Your task to perform on an android device: How do I get to the nearest Lowe's? Image 0: 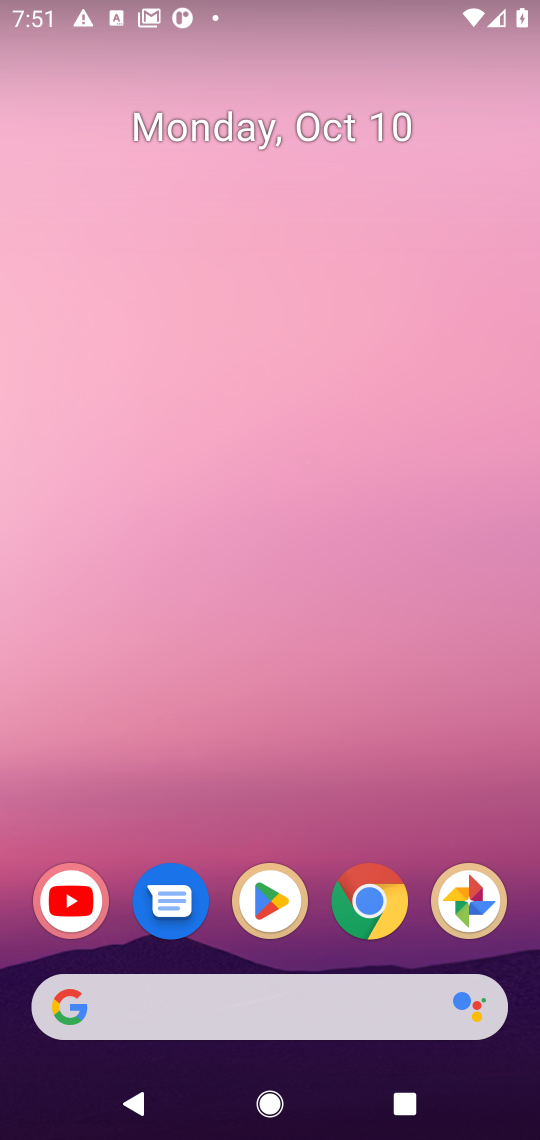
Step 0: click (315, 971)
Your task to perform on an android device: How do I get to the nearest Lowe's? Image 1: 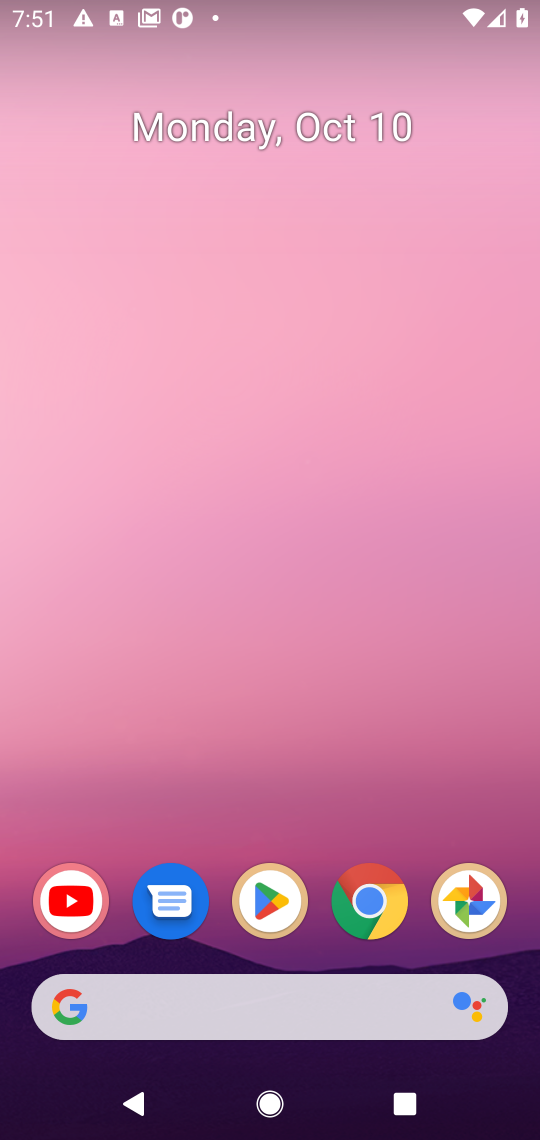
Step 1: click (310, 979)
Your task to perform on an android device: How do I get to the nearest Lowe's? Image 2: 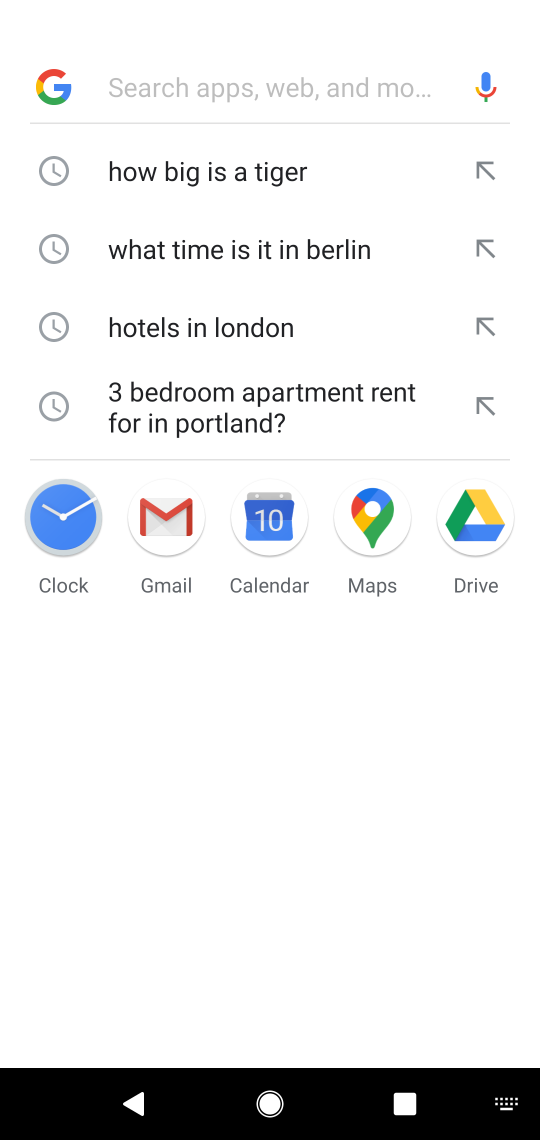
Step 2: type "nearest Lowe's"
Your task to perform on an android device: How do I get to the nearest Lowe's? Image 3: 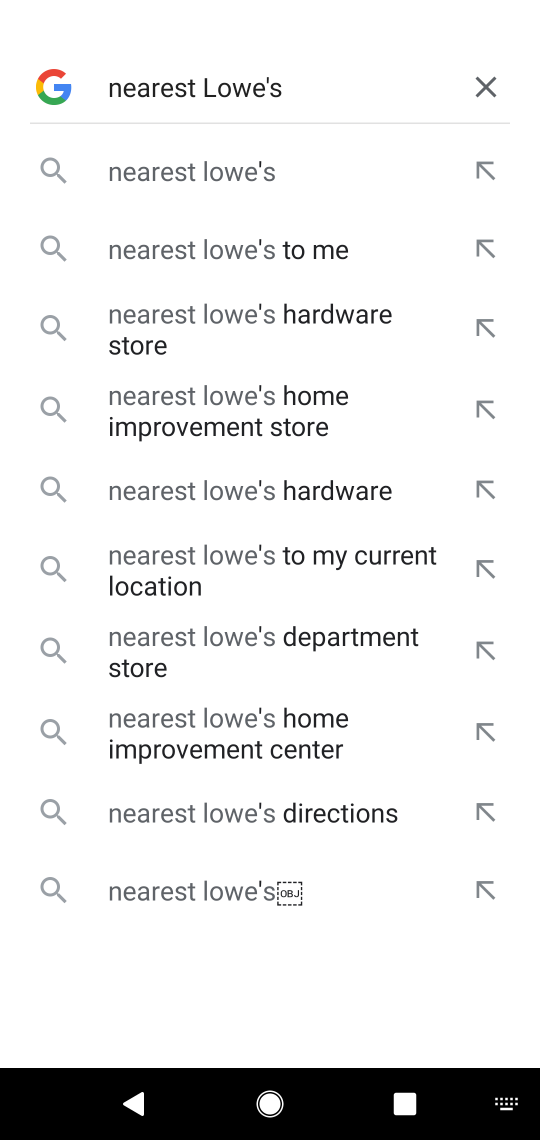
Step 3: click (210, 178)
Your task to perform on an android device: How do I get to the nearest Lowe's? Image 4: 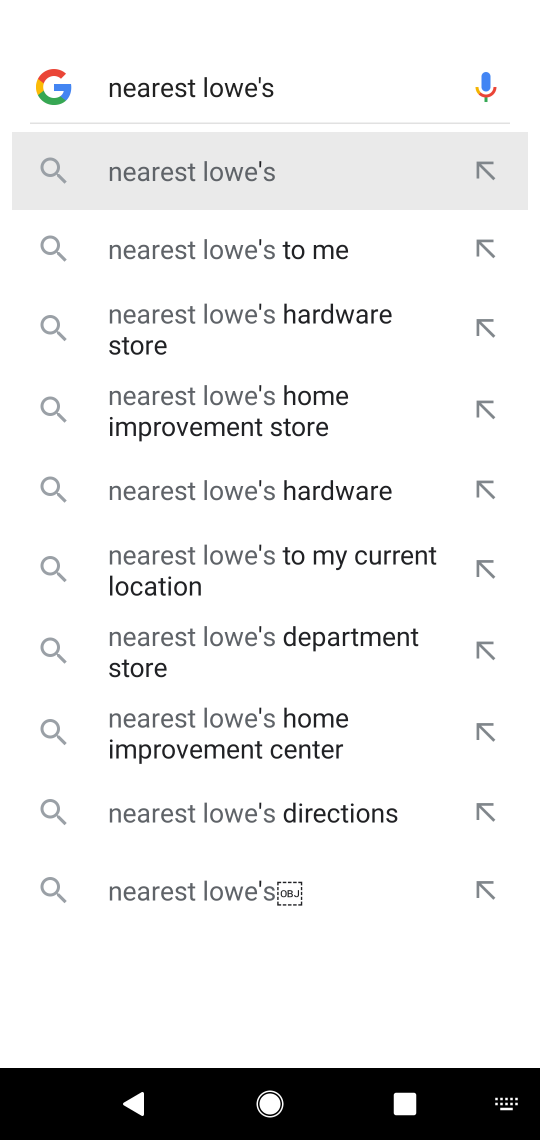
Step 4: click (210, 178)
Your task to perform on an android device: How do I get to the nearest Lowe's? Image 5: 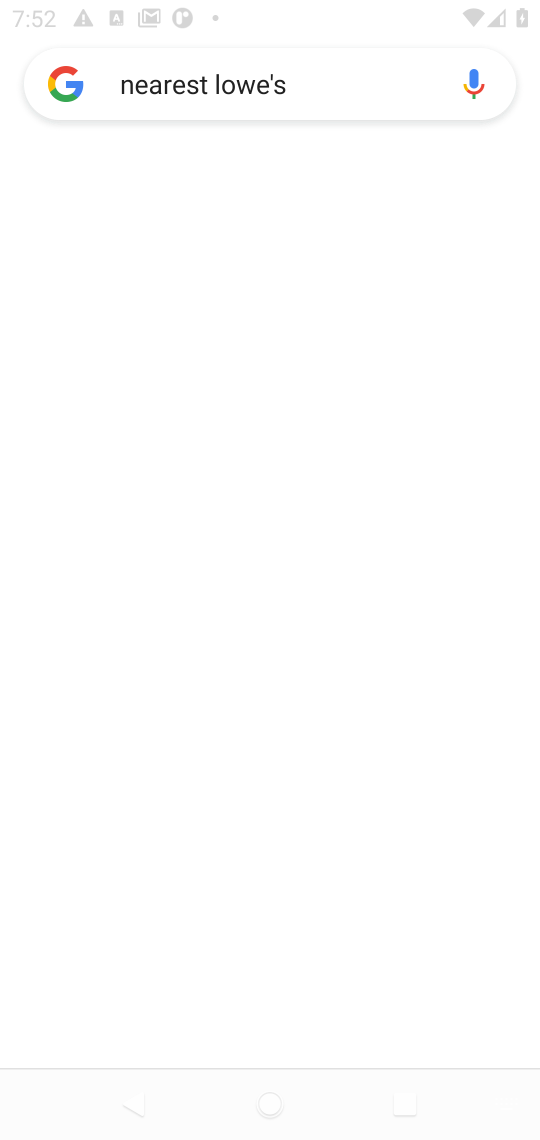
Step 5: click (210, 178)
Your task to perform on an android device: How do I get to the nearest Lowe's? Image 6: 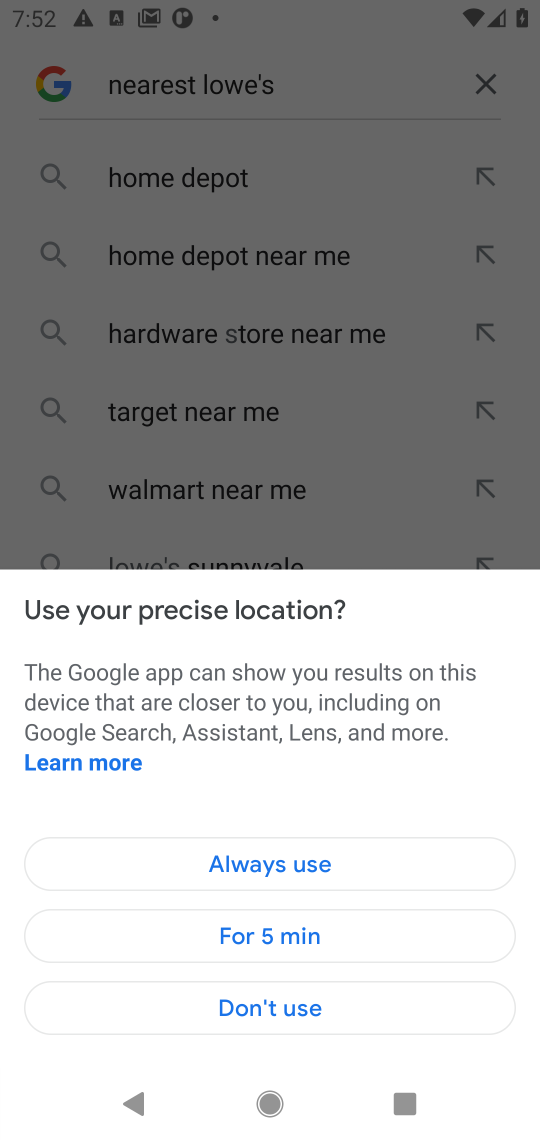
Step 6: click (295, 857)
Your task to perform on an android device: How do I get to the nearest Lowe's? Image 7: 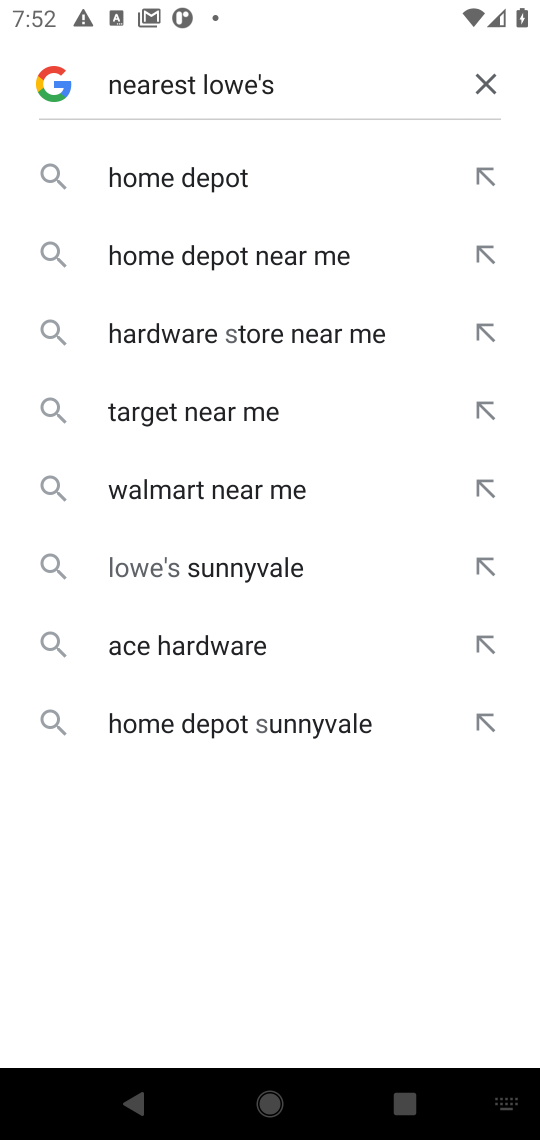
Step 7: press enter
Your task to perform on an android device: How do I get to the nearest Lowe's? Image 8: 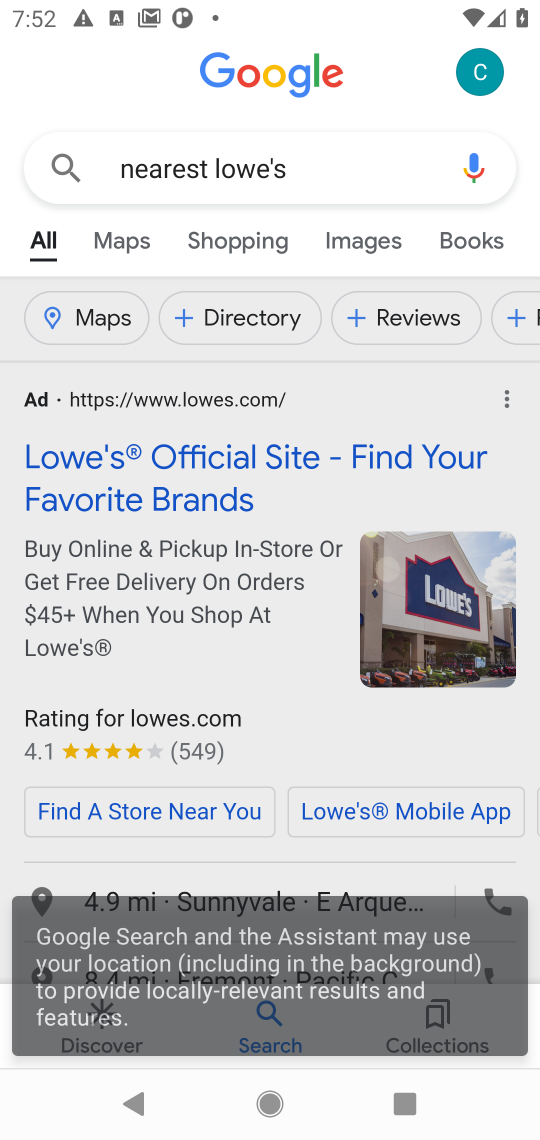
Step 8: drag from (322, 705) to (371, 379)
Your task to perform on an android device: How do I get to the nearest Lowe's? Image 9: 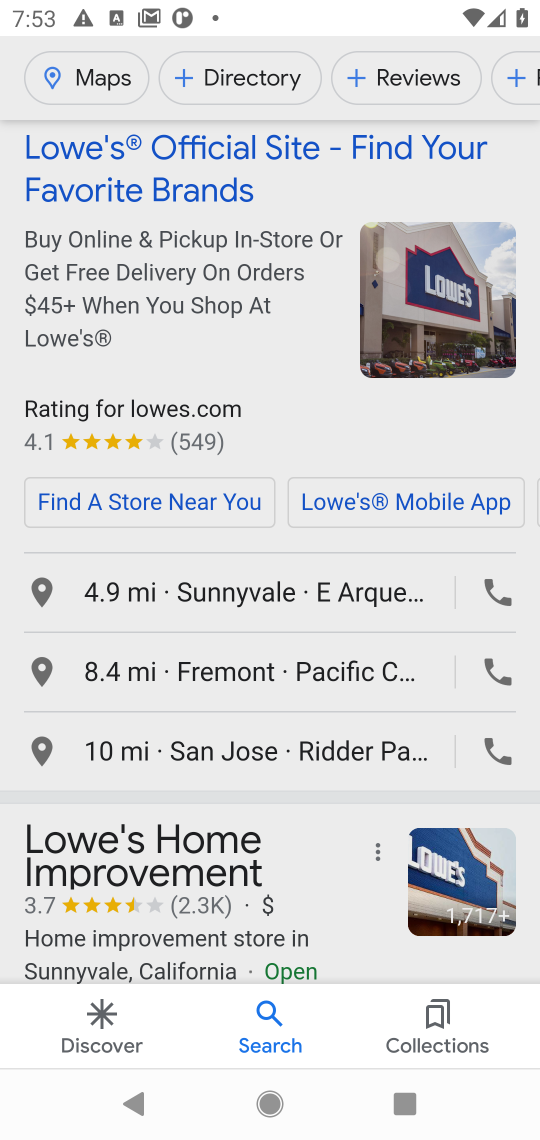
Step 9: drag from (20, 799) to (45, 210)
Your task to perform on an android device: How do I get to the nearest Lowe's? Image 10: 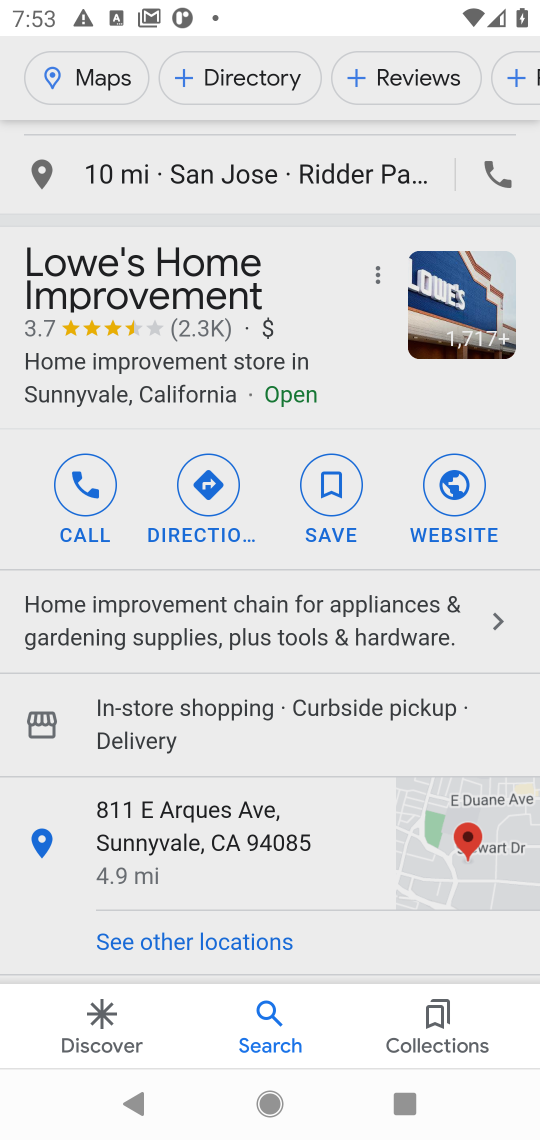
Step 10: drag from (26, 688) to (47, 264)
Your task to perform on an android device: How do I get to the nearest Lowe's? Image 11: 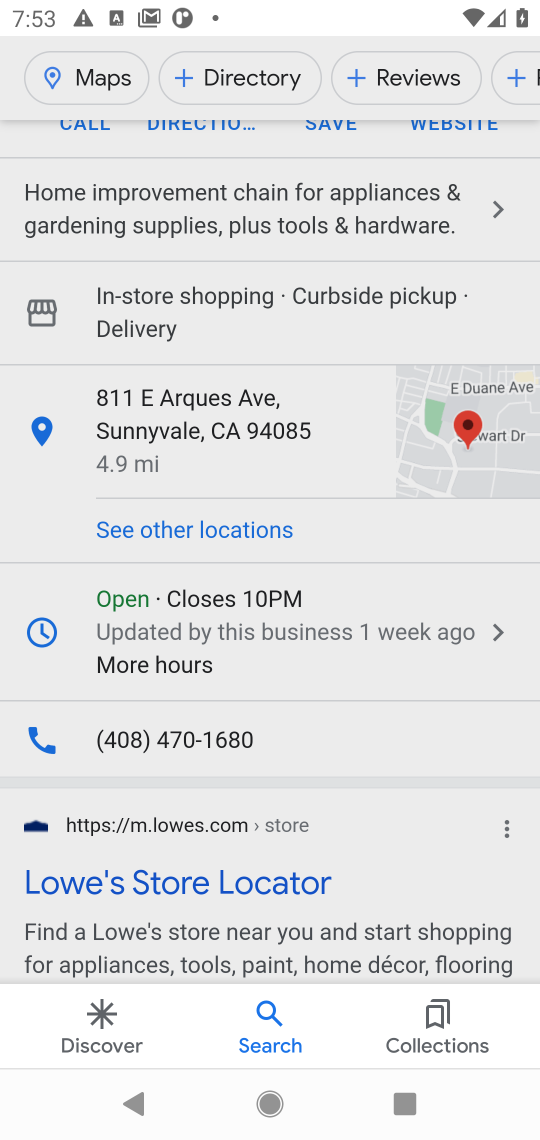
Step 11: drag from (48, 679) to (74, 314)
Your task to perform on an android device: How do I get to the nearest Lowe's? Image 12: 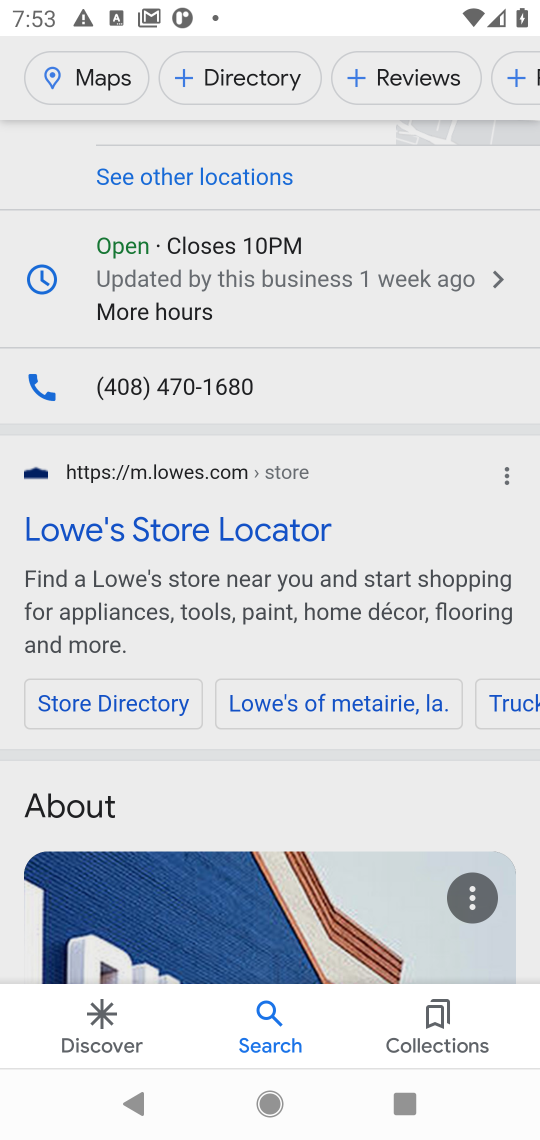
Step 12: drag from (50, 775) to (125, 175)
Your task to perform on an android device: How do I get to the nearest Lowe's? Image 13: 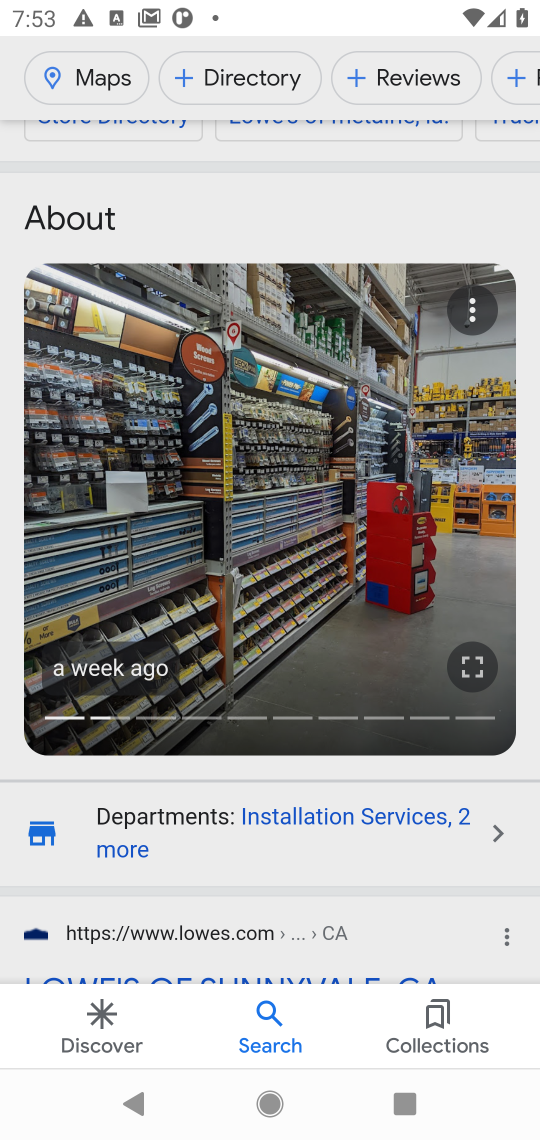
Step 13: drag from (59, 883) to (111, 174)
Your task to perform on an android device: How do I get to the nearest Lowe's? Image 14: 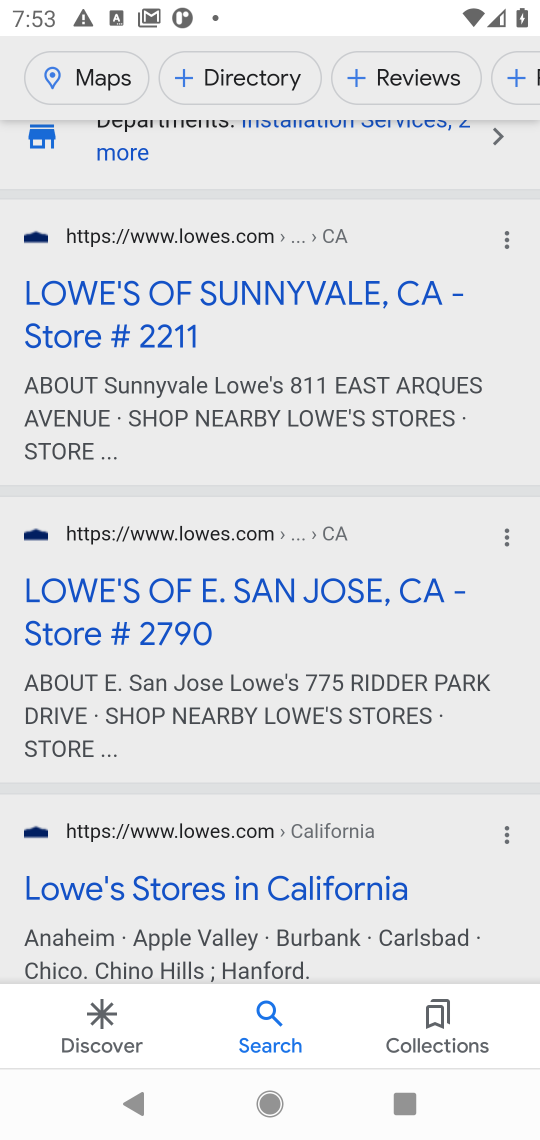
Step 14: drag from (516, 620) to (522, 312)
Your task to perform on an android device: How do I get to the nearest Lowe's? Image 15: 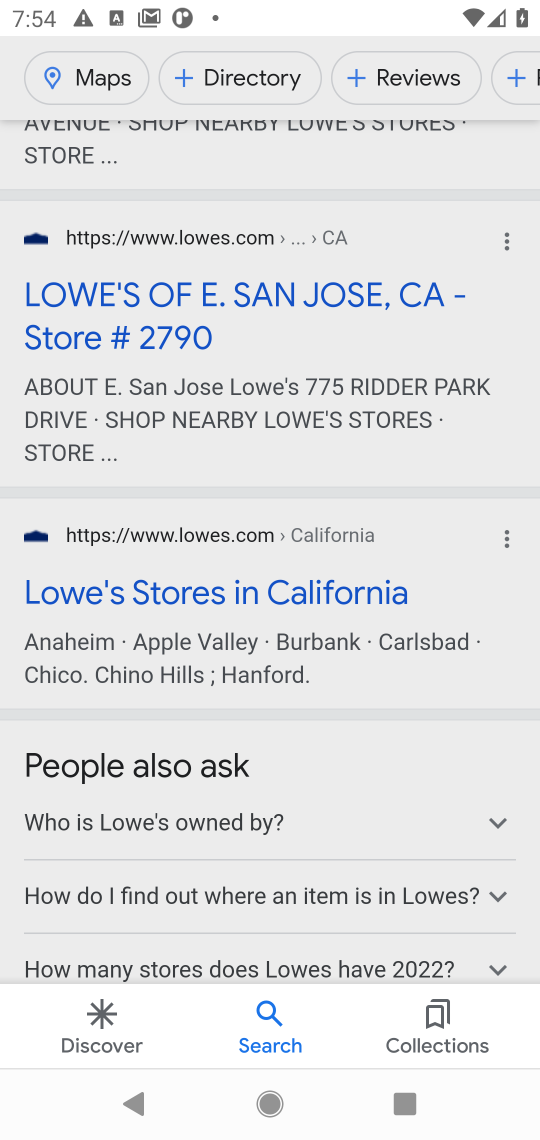
Step 15: click (506, 431)
Your task to perform on an android device: How do I get to the nearest Lowe's? Image 16: 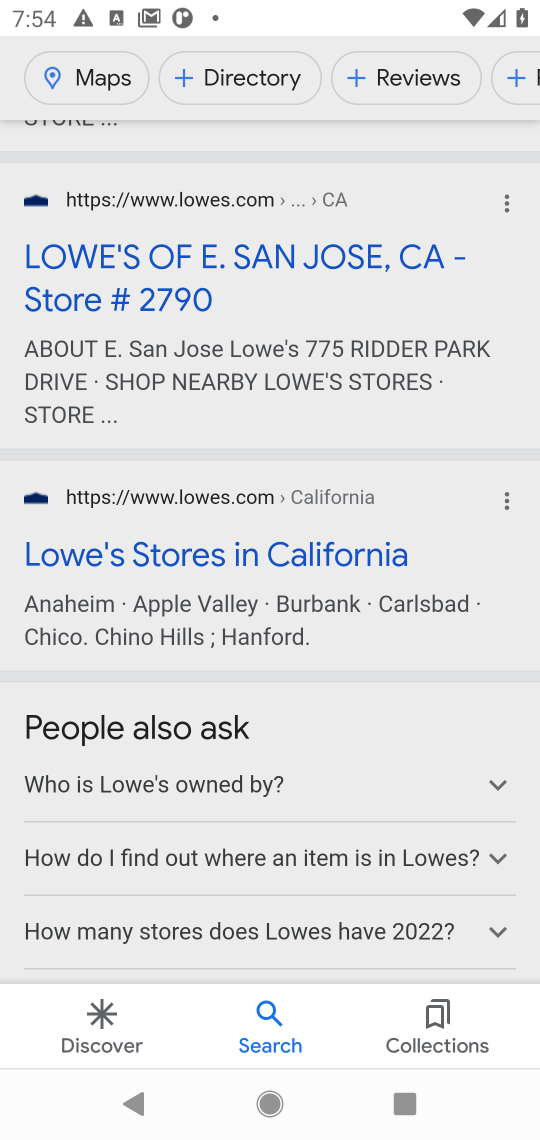
Step 16: drag from (495, 337) to (529, 135)
Your task to perform on an android device: How do I get to the nearest Lowe's? Image 17: 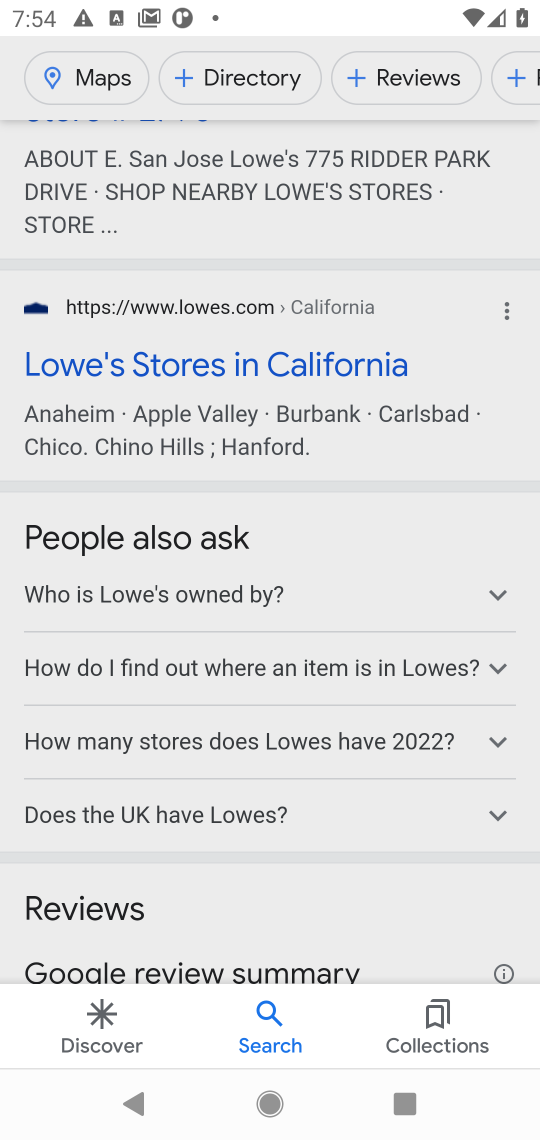
Step 17: drag from (428, 478) to (463, 273)
Your task to perform on an android device: How do I get to the nearest Lowe's? Image 18: 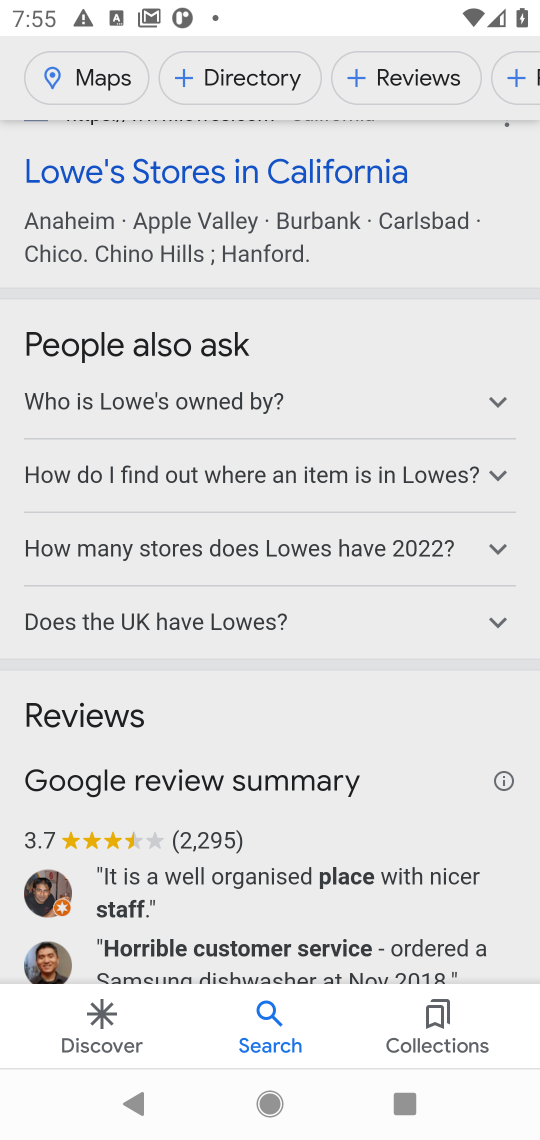
Step 18: click (503, 394)
Your task to perform on an android device: How do I get to the nearest Lowe's? Image 19: 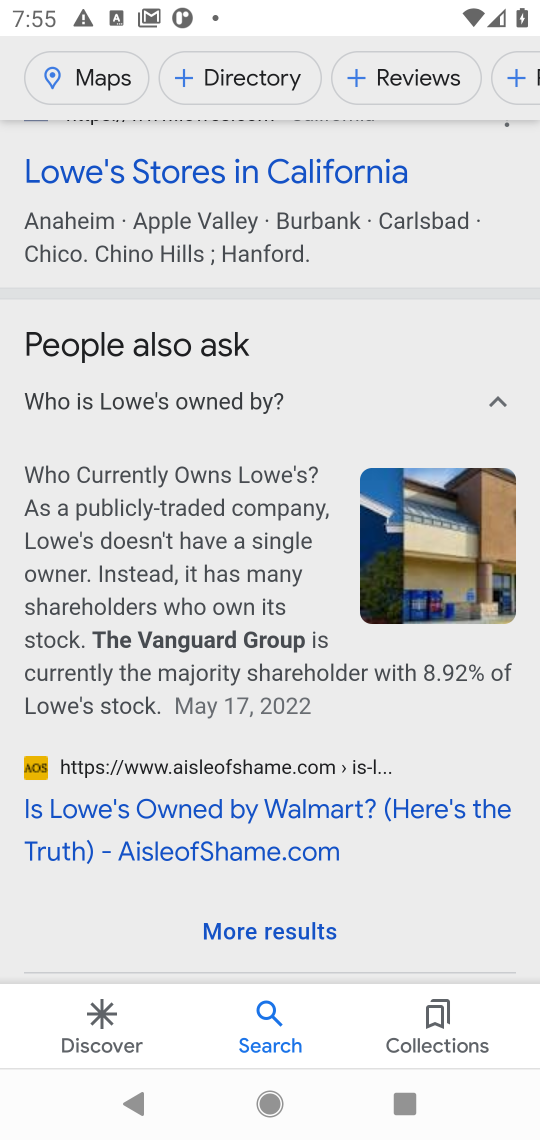
Step 19: click (498, 403)
Your task to perform on an android device: How do I get to the nearest Lowe's? Image 20: 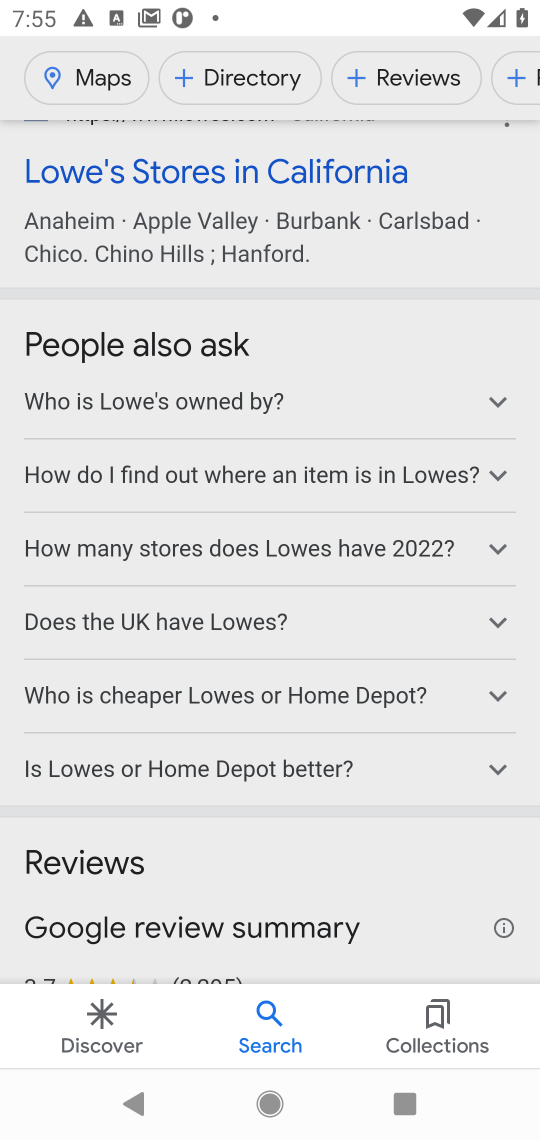
Step 20: task complete